Your task to perform on an android device: open a bookmark in the chrome app Image 0: 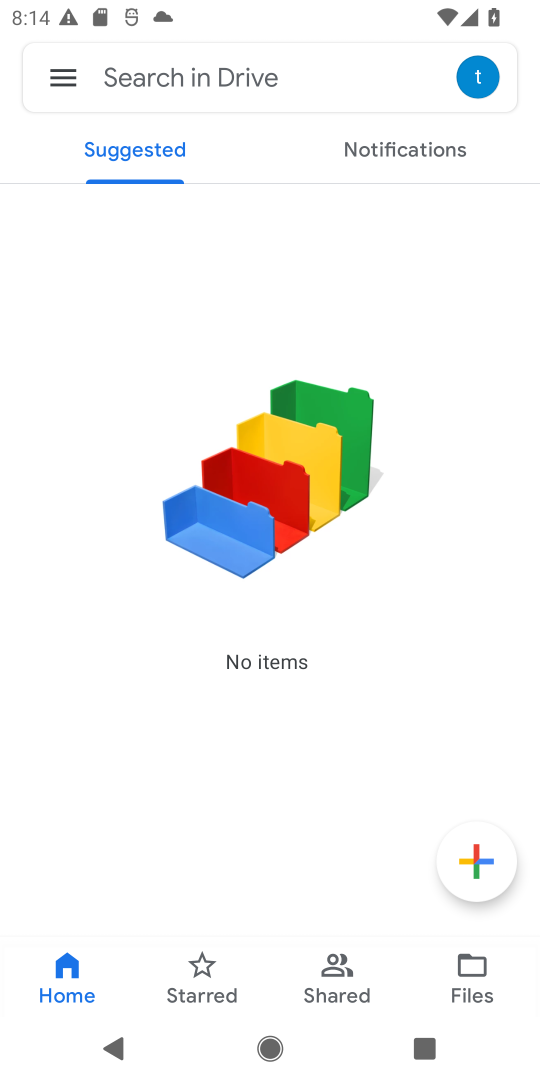
Step 0: press home button
Your task to perform on an android device: open a bookmark in the chrome app Image 1: 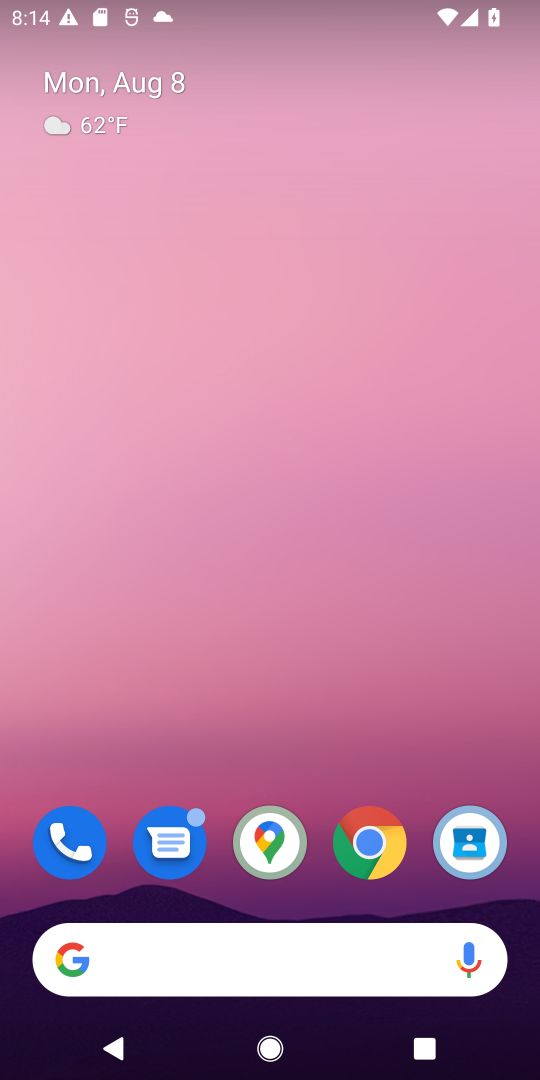
Step 1: click (368, 847)
Your task to perform on an android device: open a bookmark in the chrome app Image 2: 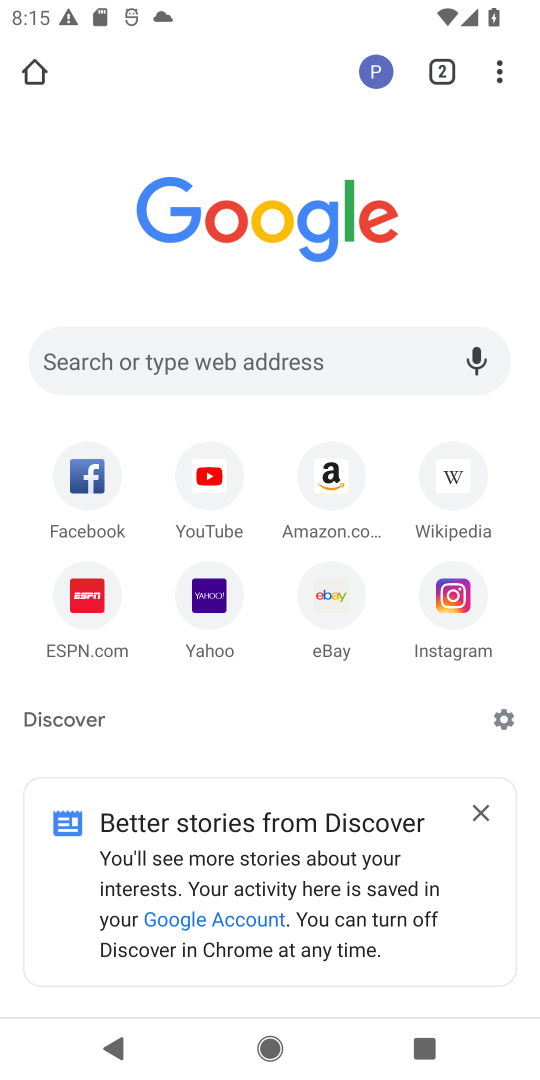
Step 2: click (498, 66)
Your task to perform on an android device: open a bookmark in the chrome app Image 3: 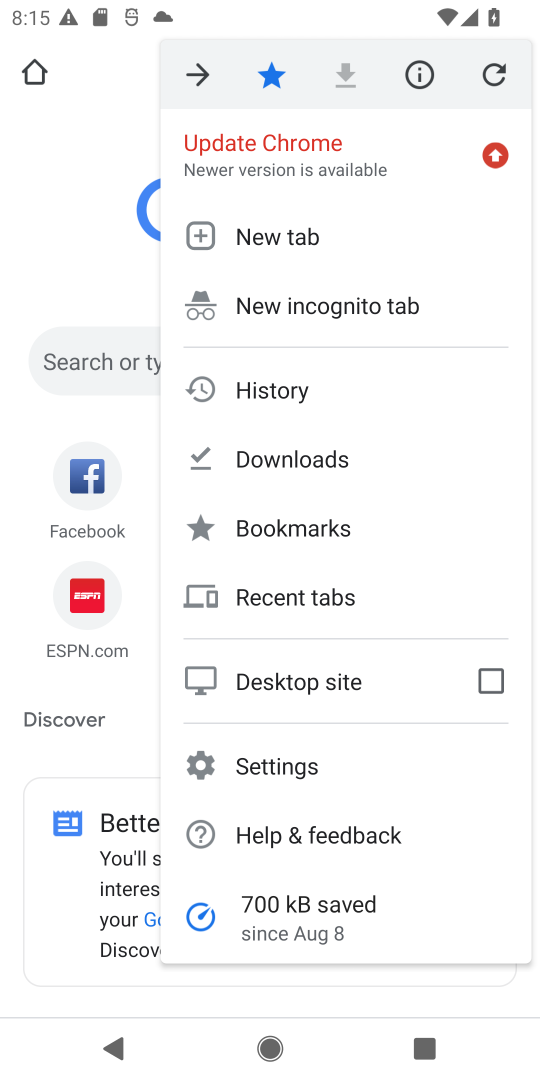
Step 3: click (299, 760)
Your task to perform on an android device: open a bookmark in the chrome app Image 4: 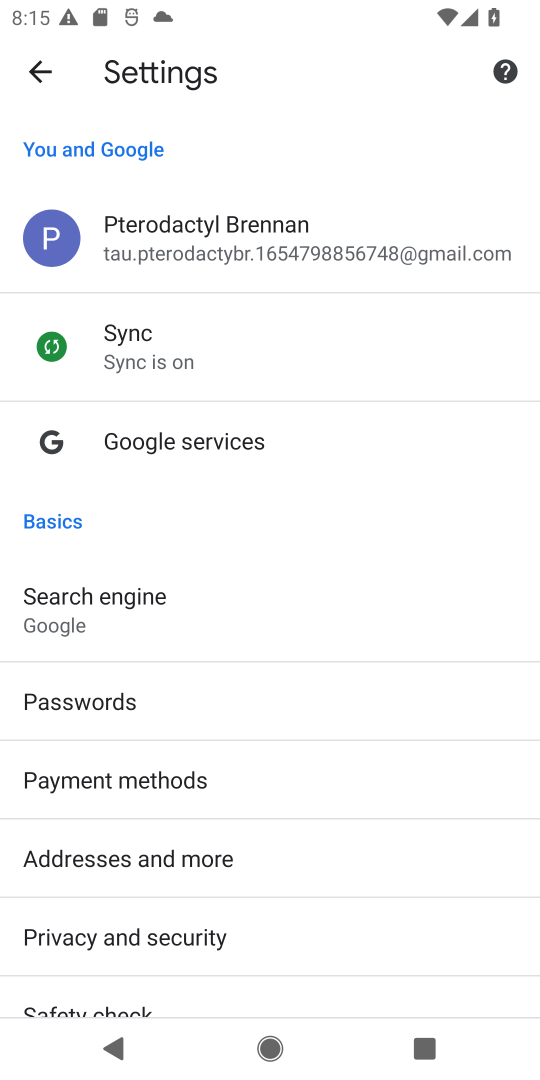
Step 4: click (40, 65)
Your task to perform on an android device: open a bookmark in the chrome app Image 5: 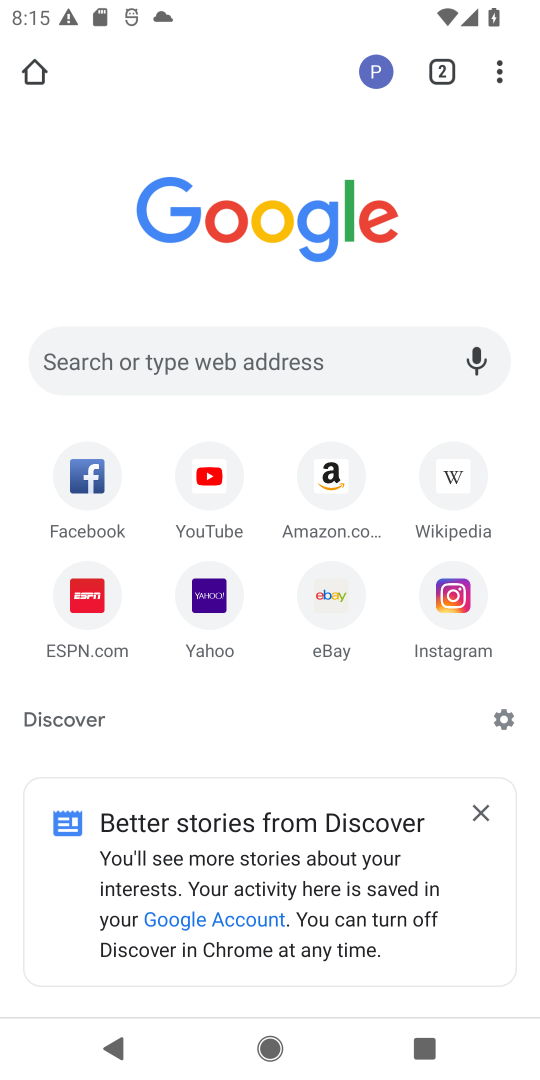
Step 5: click (495, 61)
Your task to perform on an android device: open a bookmark in the chrome app Image 6: 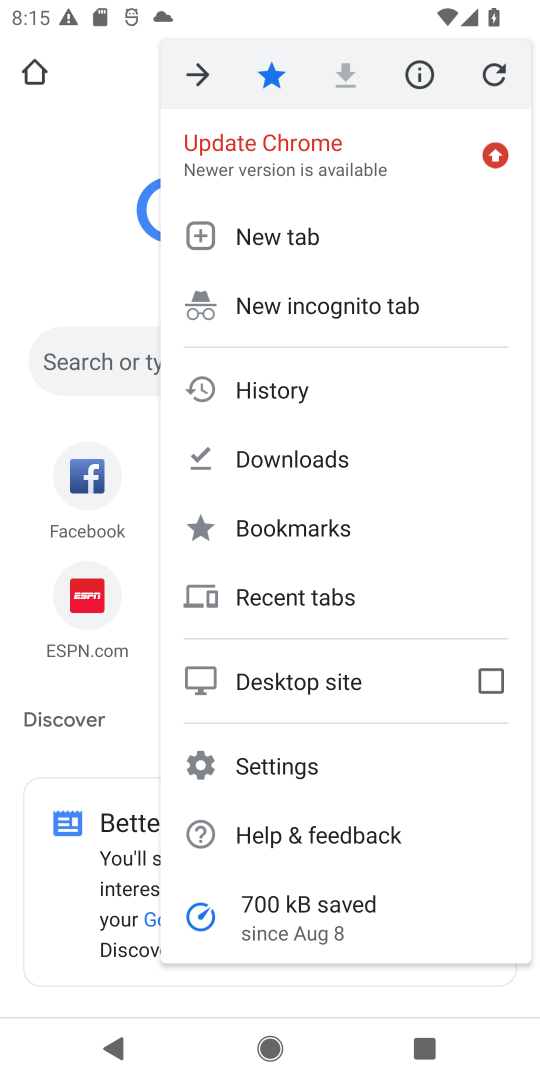
Step 6: click (318, 521)
Your task to perform on an android device: open a bookmark in the chrome app Image 7: 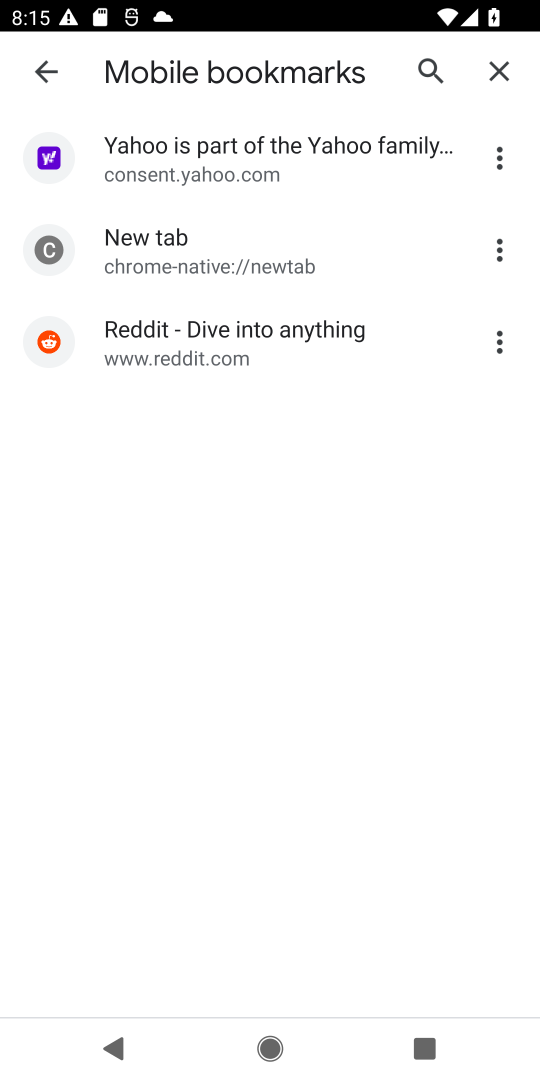
Step 7: click (287, 319)
Your task to perform on an android device: open a bookmark in the chrome app Image 8: 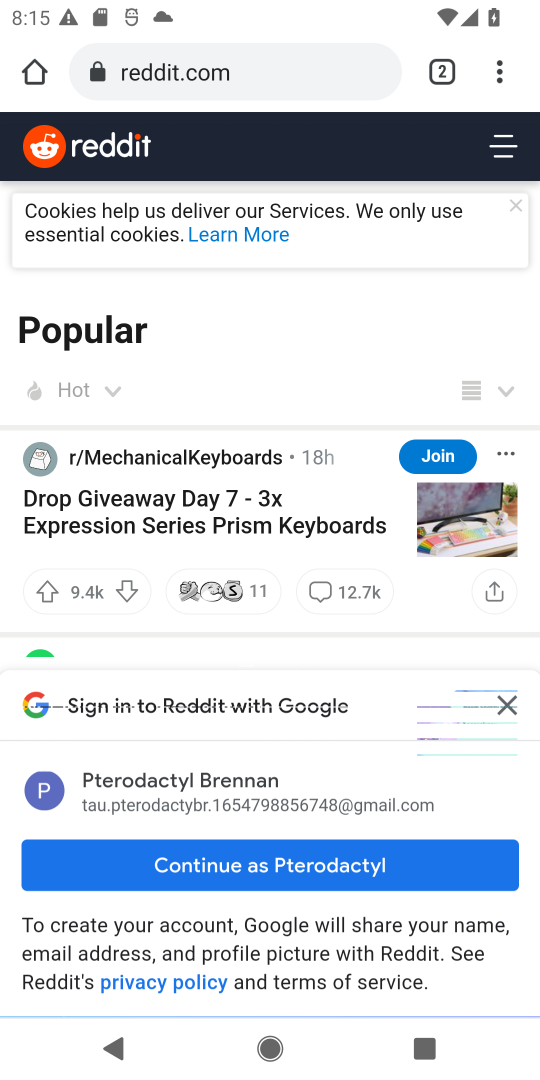
Step 8: task complete